Your task to perform on an android device: toggle airplane mode Image 0: 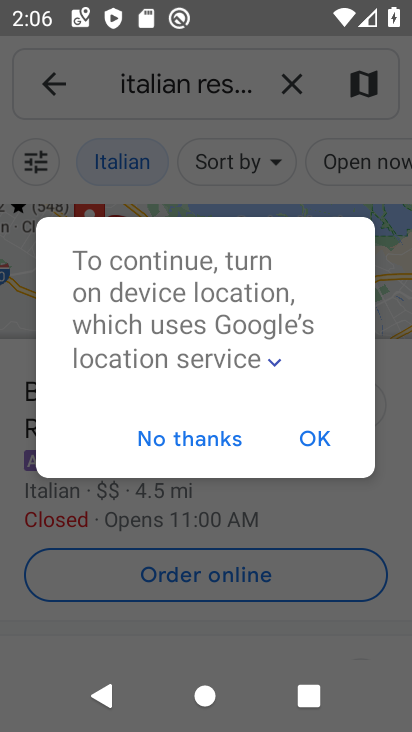
Step 0: press home button
Your task to perform on an android device: toggle airplane mode Image 1: 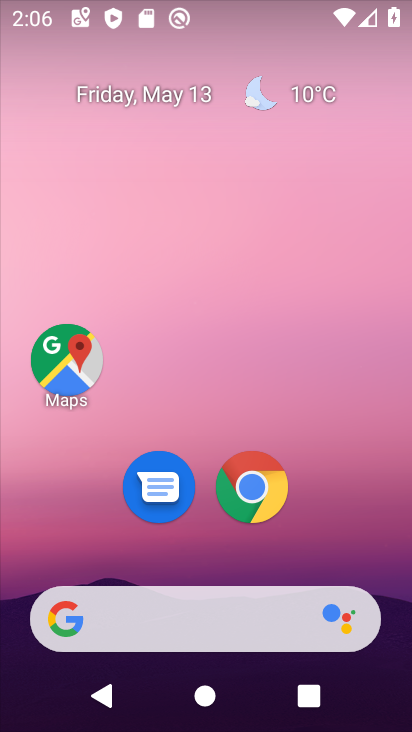
Step 1: drag from (200, 522) to (231, 144)
Your task to perform on an android device: toggle airplane mode Image 2: 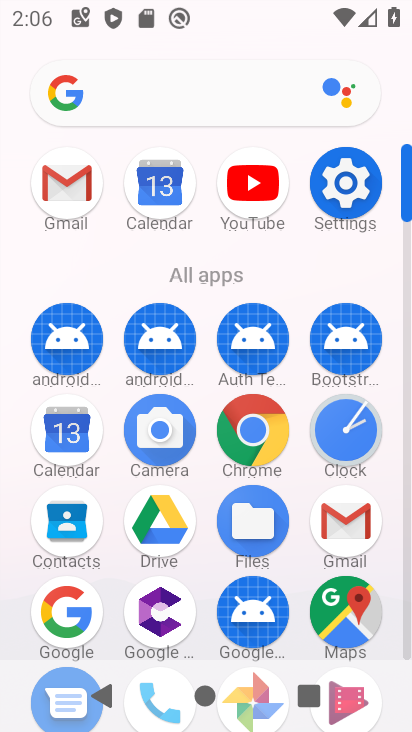
Step 2: click (342, 184)
Your task to perform on an android device: toggle airplane mode Image 3: 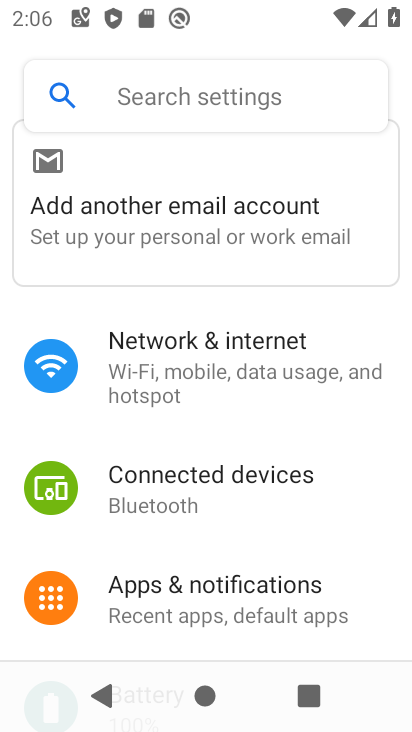
Step 3: drag from (272, 395) to (299, 166)
Your task to perform on an android device: toggle airplane mode Image 4: 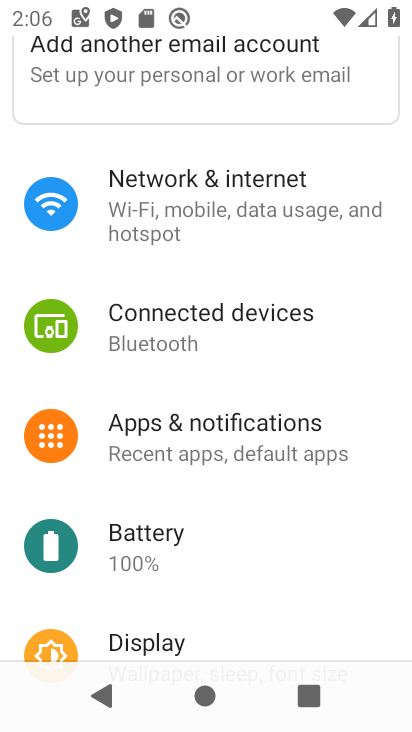
Step 4: drag from (260, 521) to (254, 228)
Your task to perform on an android device: toggle airplane mode Image 5: 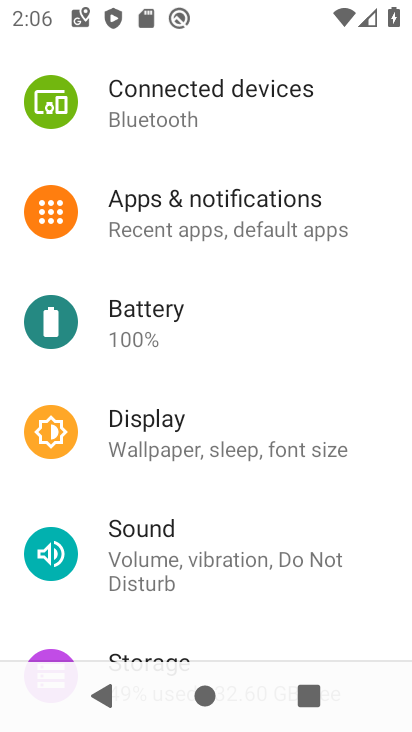
Step 5: drag from (226, 170) to (228, 505)
Your task to perform on an android device: toggle airplane mode Image 6: 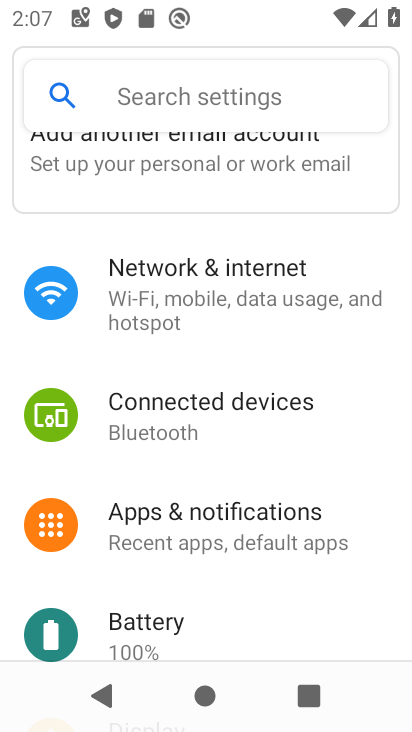
Step 6: click (272, 286)
Your task to perform on an android device: toggle airplane mode Image 7: 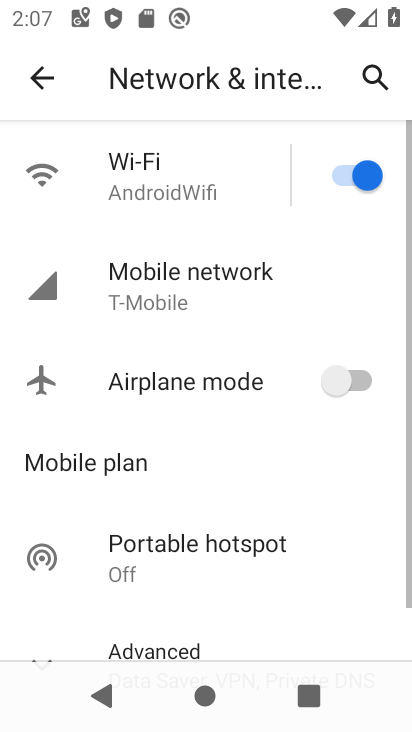
Step 7: click (349, 380)
Your task to perform on an android device: toggle airplane mode Image 8: 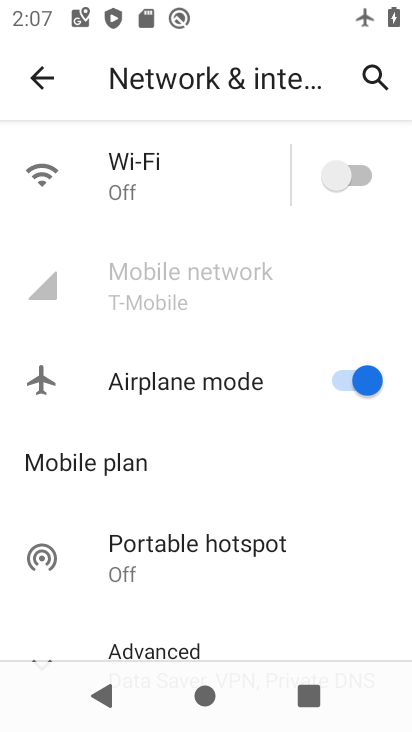
Step 8: task complete